Your task to perform on an android device: change the clock style Image 0: 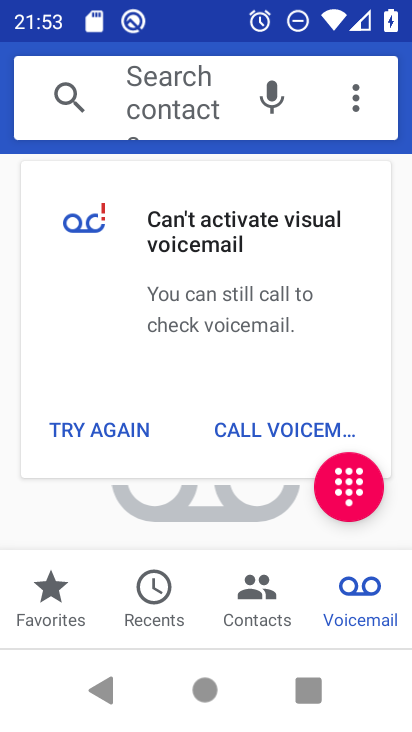
Step 0: press home button
Your task to perform on an android device: change the clock style Image 1: 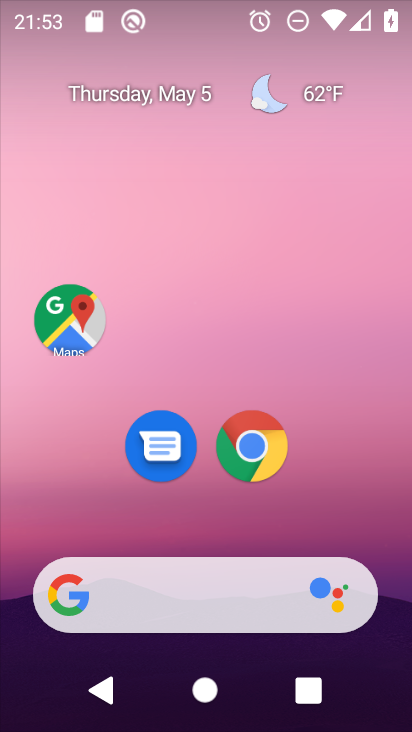
Step 1: drag from (318, 641) to (255, 228)
Your task to perform on an android device: change the clock style Image 2: 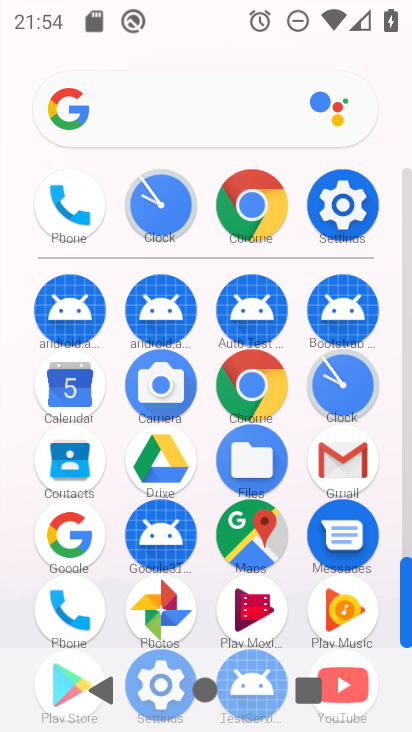
Step 2: click (317, 371)
Your task to perform on an android device: change the clock style Image 3: 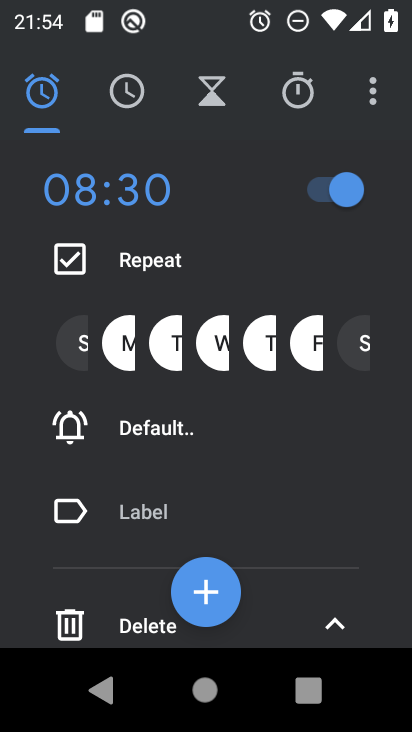
Step 3: click (370, 93)
Your task to perform on an android device: change the clock style Image 4: 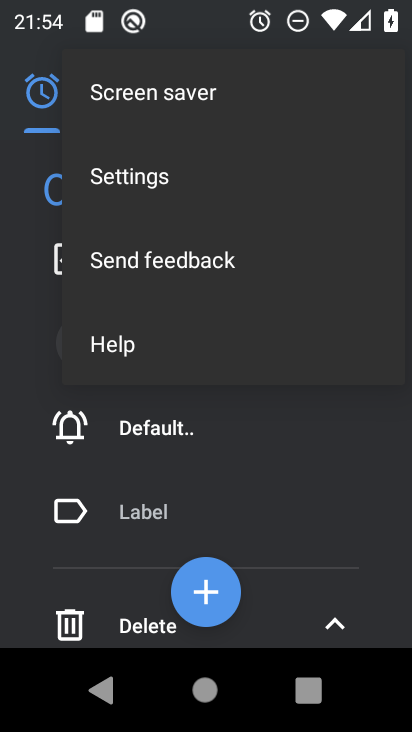
Step 4: click (223, 180)
Your task to perform on an android device: change the clock style Image 5: 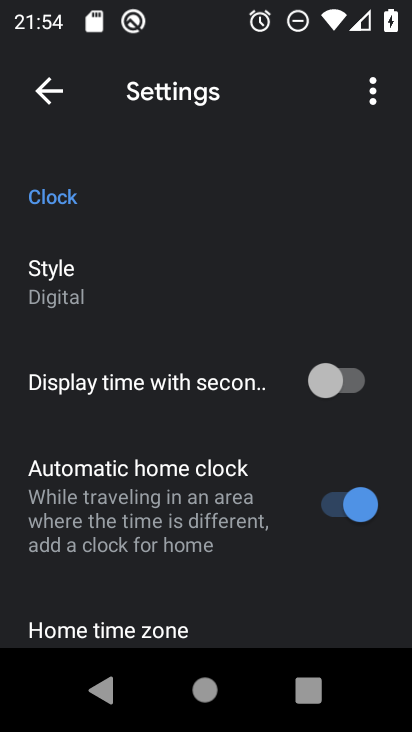
Step 5: click (124, 311)
Your task to perform on an android device: change the clock style Image 6: 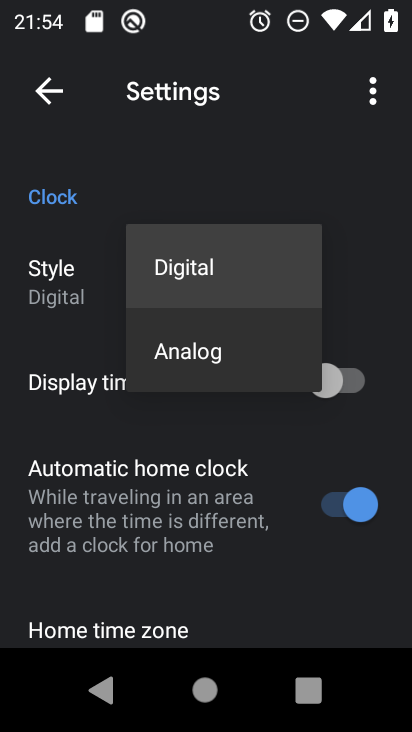
Step 6: click (192, 353)
Your task to perform on an android device: change the clock style Image 7: 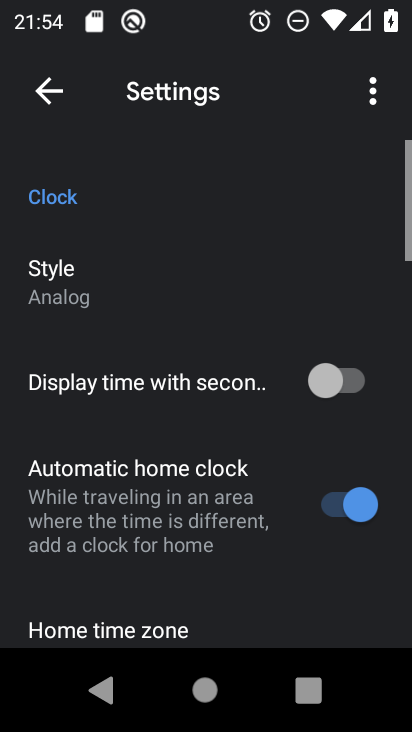
Step 7: task complete